Your task to perform on an android device: toggle improve location accuracy Image 0: 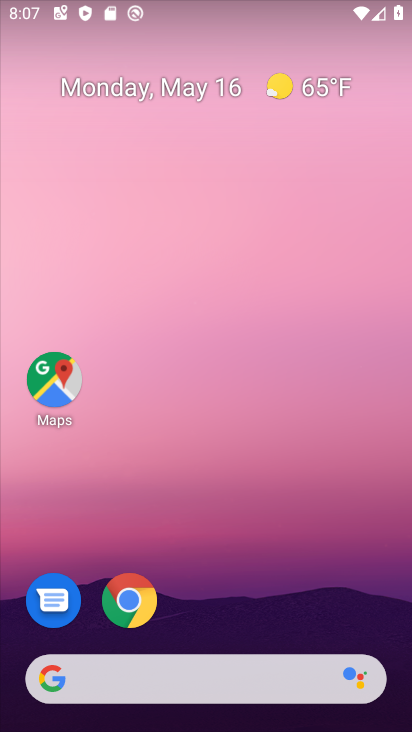
Step 0: drag from (217, 593) to (280, 52)
Your task to perform on an android device: toggle improve location accuracy Image 1: 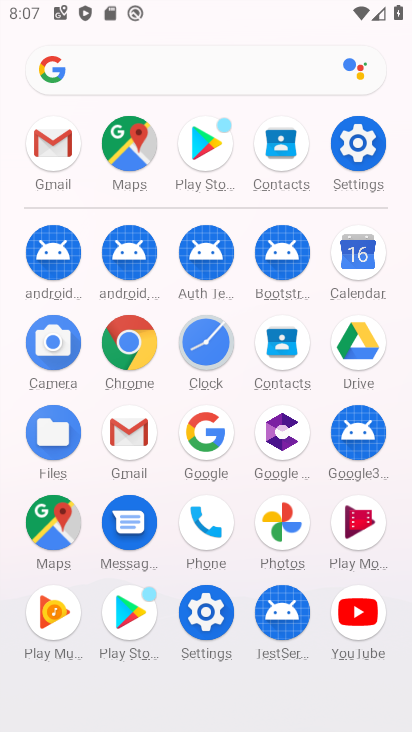
Step 1: click (361, 157)
Your task to perform on an android device: toggle improve location accuracy Image 2: 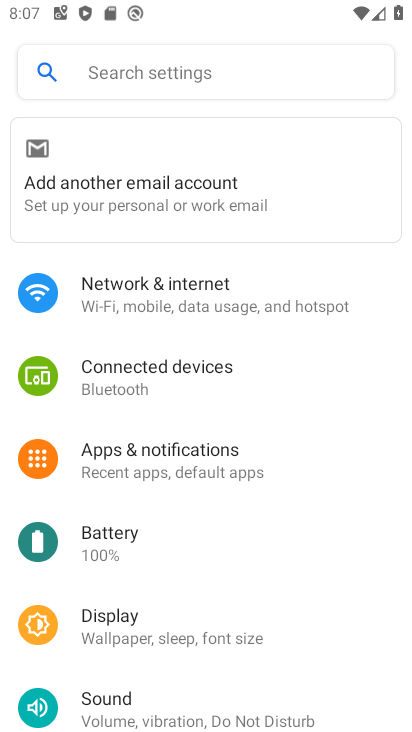
Step 2: drag from (137, 501) to (228, 81)
Your task to perform on an android device: toggle improve location accuracy Image 3: 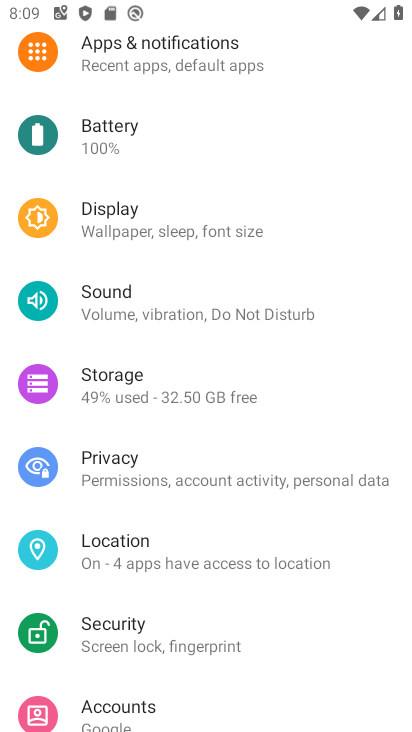
Step 3: click (146, 539)
Your task to perform on an android device: toggle improve location accuracy Image 4: 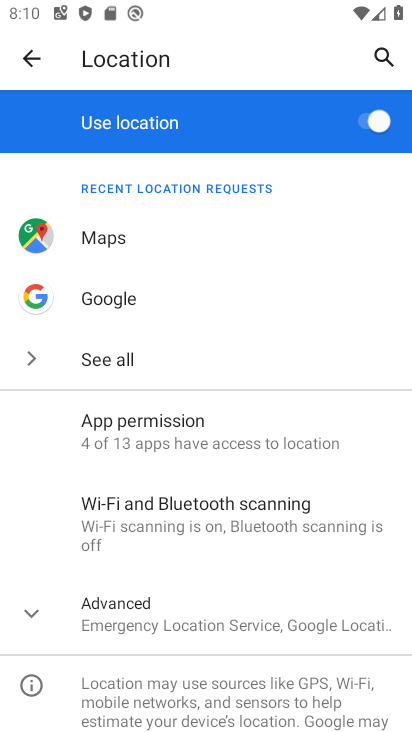
Step 4: drag from (152, 540) to (204, 255)
Your task to perform on an android device: toggle improve location accuracy Image 5: 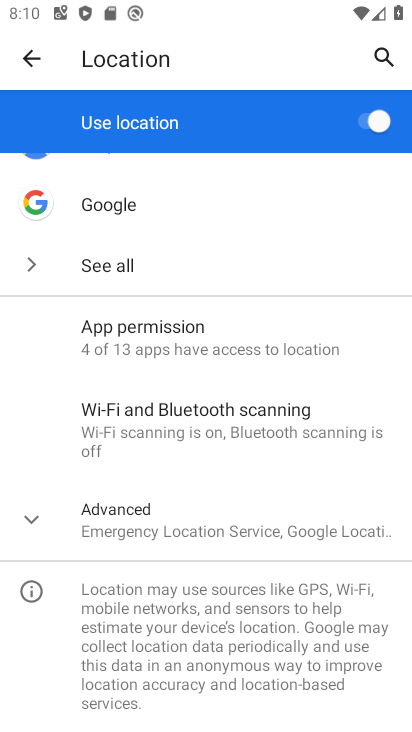
Step 5: click (128, 529)
Your task to perform on an android device: toggle improve location accuracy Image 6: 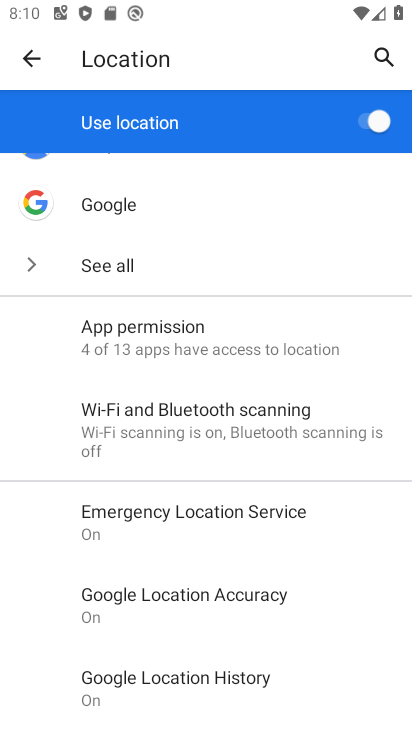
Step 6: click (216, 677)
Your task to perform on an android device: toggle improve location accuracy Image 7: 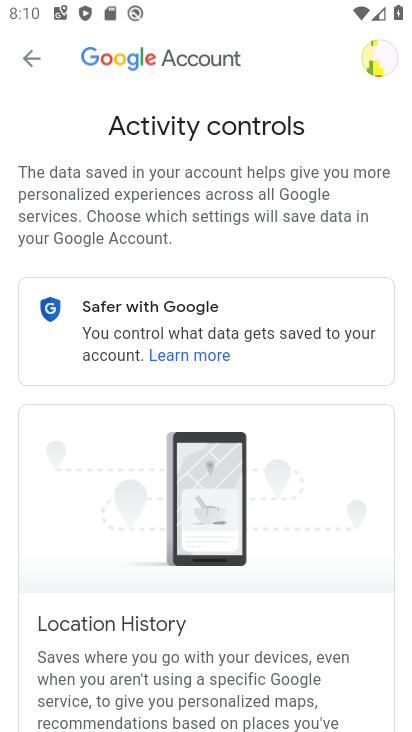
Step 7: drag from (173, 597) to (345, 202)
Your task to perform on an android device: toggle improve location accuracy Image 8: 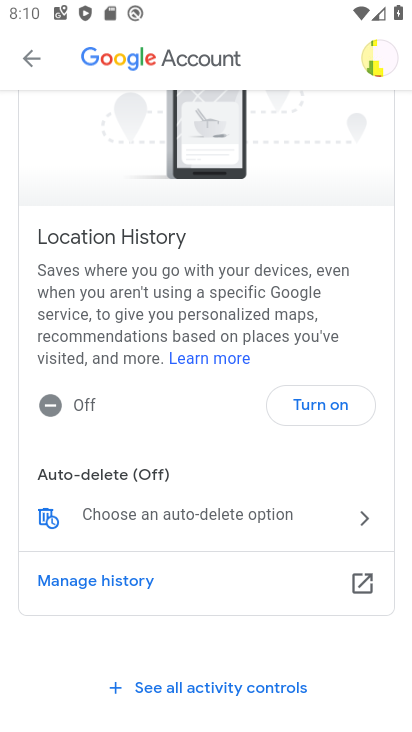
Step 8: drag from (142, 643) to (293, 226)
Your task to perform on an android device: toggle improve location accuracy Image 9: 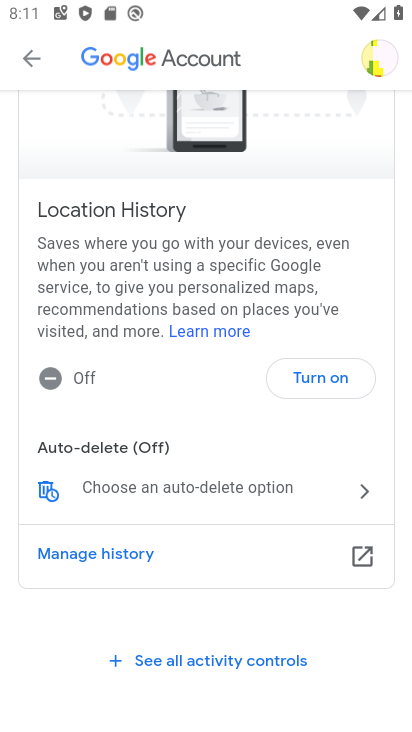
Step 9: click (42, 486)
Your task to perform on an android device: toggle improve location accuracy Image 10: 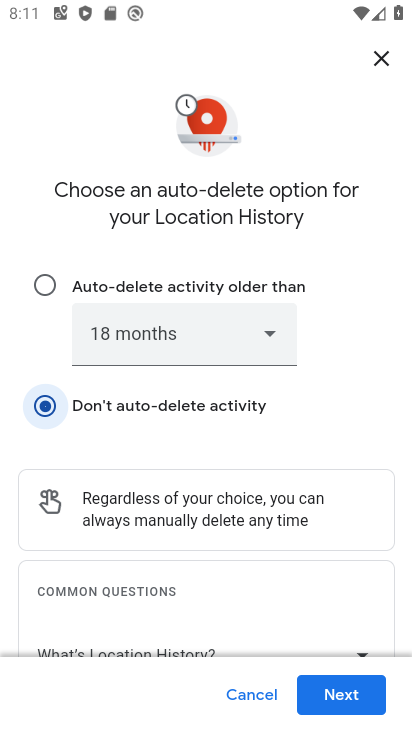
Step 10: click (357, 693)
Your task to perform on an android device: toggle improve location accuracy Image 11: 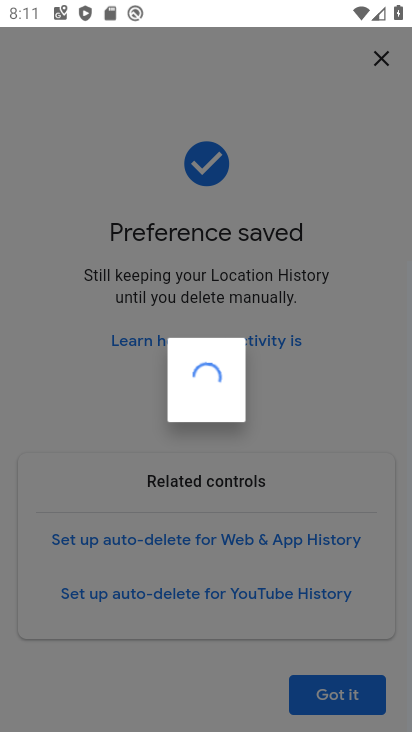
Step 11: click (357, 690)
Your task to perform on an android device: toggle improve location accuracy Image 12: 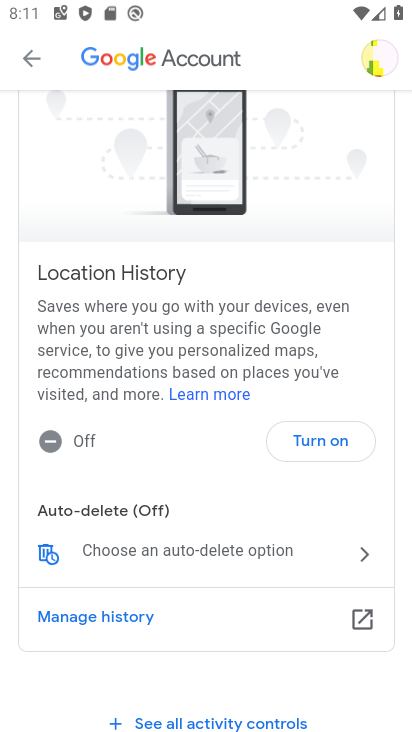
Step 12: click (342, 651)
Your task to perform on an android device: toggle improve location accuracy Image 13: 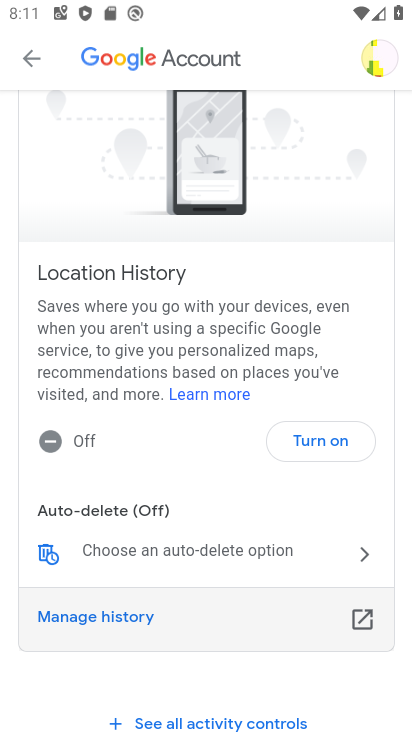
Step 13: task complete